Your task to perform on an android device: move an email to a new category in the gmail app Image 0: 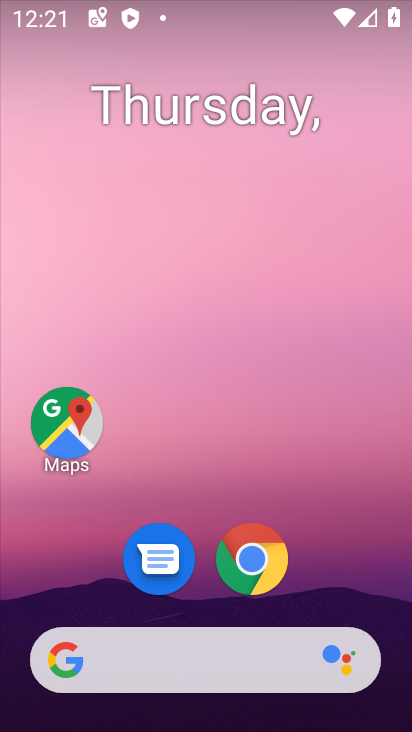
Step 0: drag from (356, 580) to (340, 15)
Your task to perform on an android device: move an email to a new category in the gmail app Image 1: 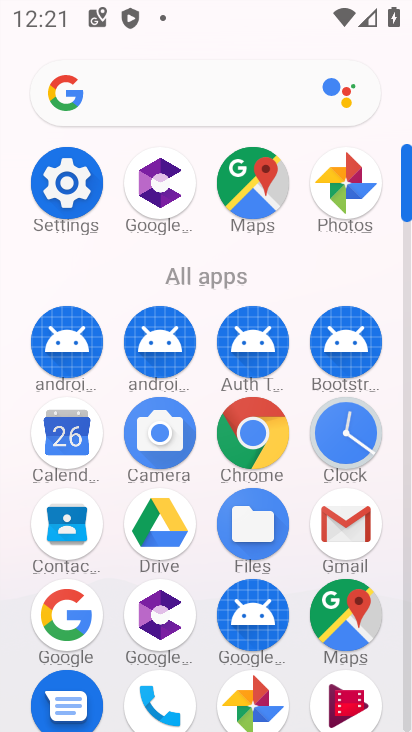
Step 1: click (353, 517)
Your task to perform on an android device: move an email to a new category in the gmail app Image 2: 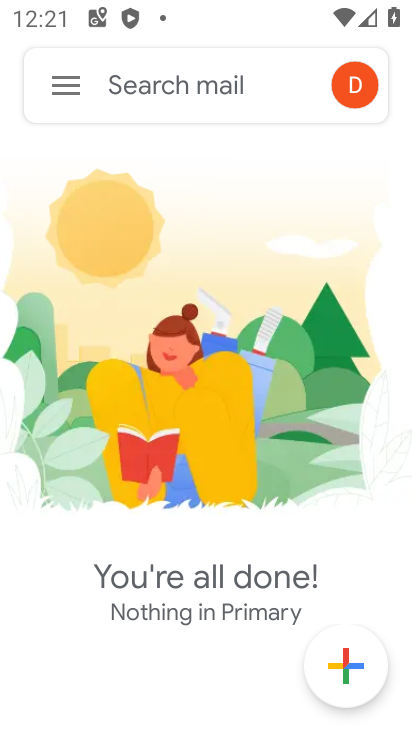
Step 2: click (61, 97)
Your task to perform on an android device: move an email to a new category in the gmail app Image 3: 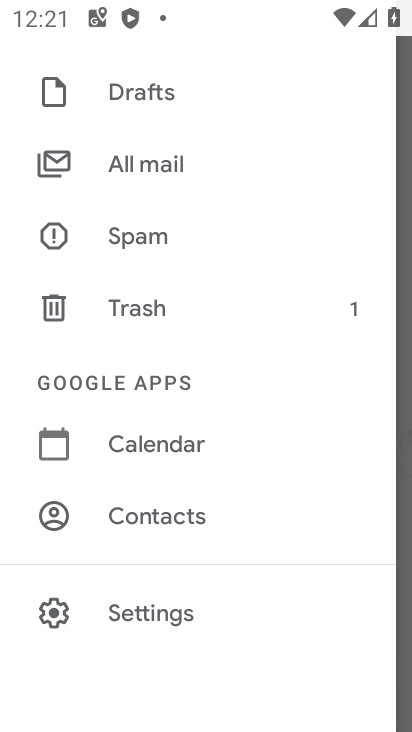
Step 3: click (166, 156)
Your task to perform on an android device: move an email to a new category in the gmail app Image 4: 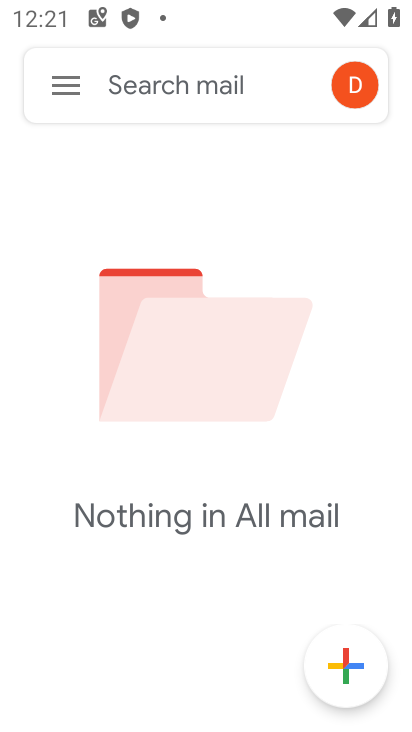
Step 4: click (54, 63)
Your task to perform on an android device: move an email to a new category in the gmail app Image 5: 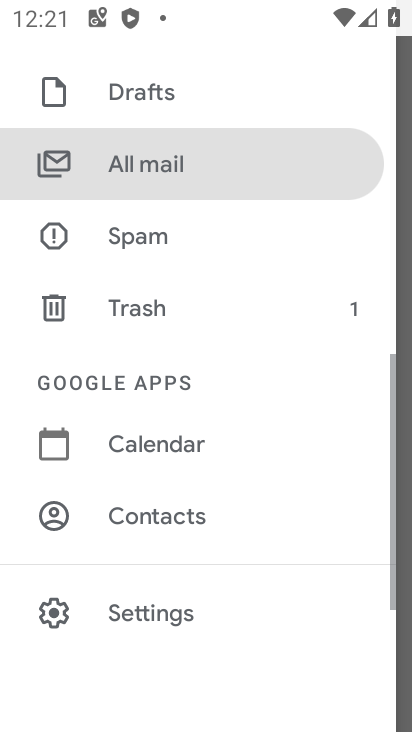
Step 5: click (217, 315)
Your task to perform on an android device: move an email to a new category in the gmail app Image 6: 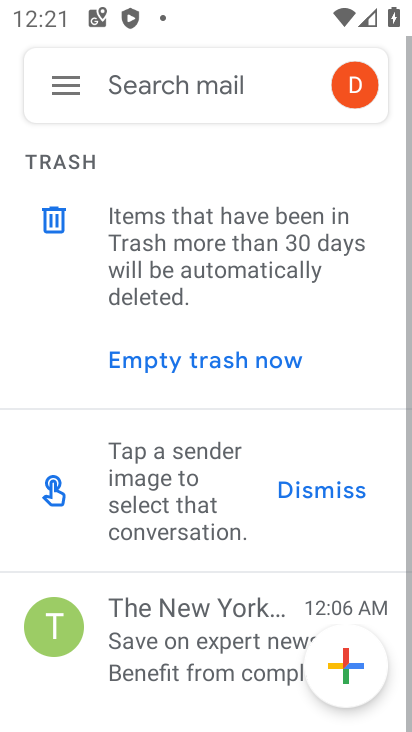
Step 6: drag from (186, 588) to (186, 280)
Your task to perform on an android device: move an email to a new category in the gmail app Image 7: 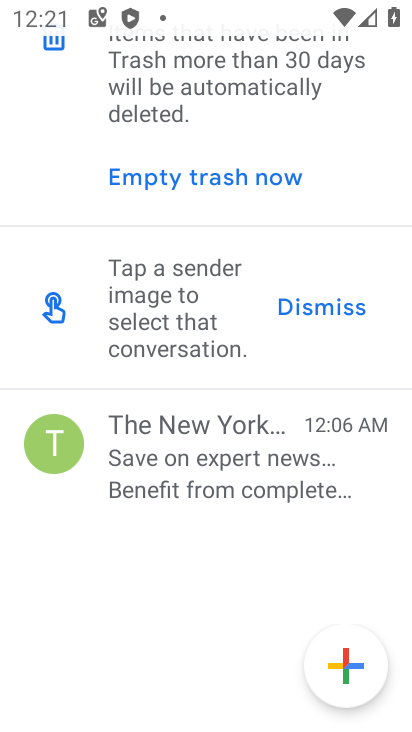
Step 7: click (184, 442)
Your task to perform on an android device: move an email to a new category in the gmail app Image 8: 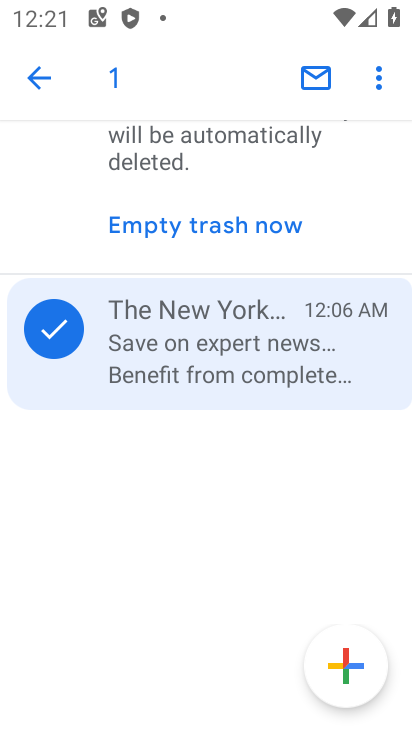
Step 8: click (374, 79)
Your task to perform on an android device: move an email to a new category in the gmail app Image 9: 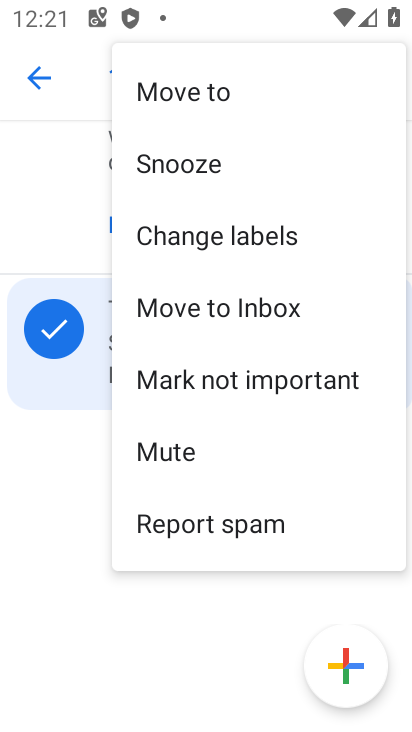
Step 9: click (285, 85)
Your task to perform on an android device: move an email to a new category in the gmail app Image 10: 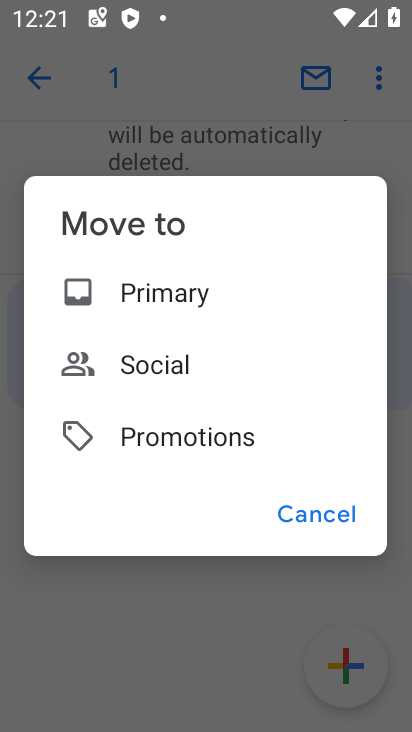
Step 10: click (168, 296)
Your task to perform on an android device: move an email to a new category in the gmail app Image 11: 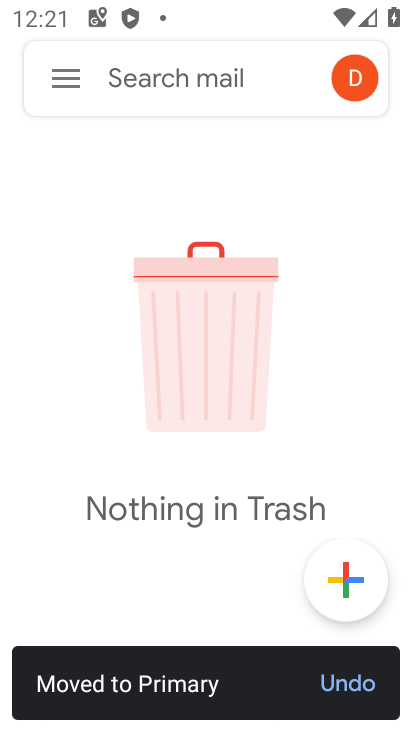
Step 11: task complete